Your task to perform on an android device: all mails in gmail Image 0: 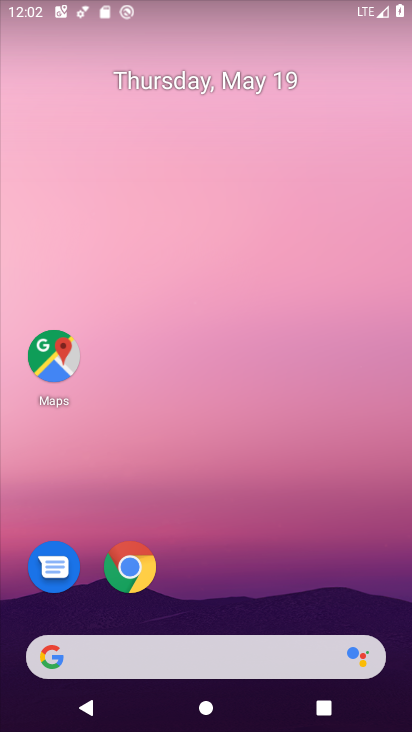
Step 0: drag from (351, 521) to (301, 12)
Your task to perform on an android device: all mails in gmail Image 1: 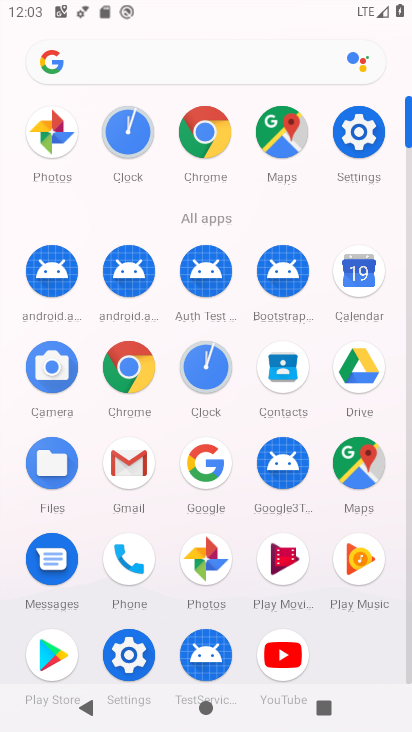
Step 1: click (139, 540)
Your task to perform on an android device: all mails in gmail Image 2: 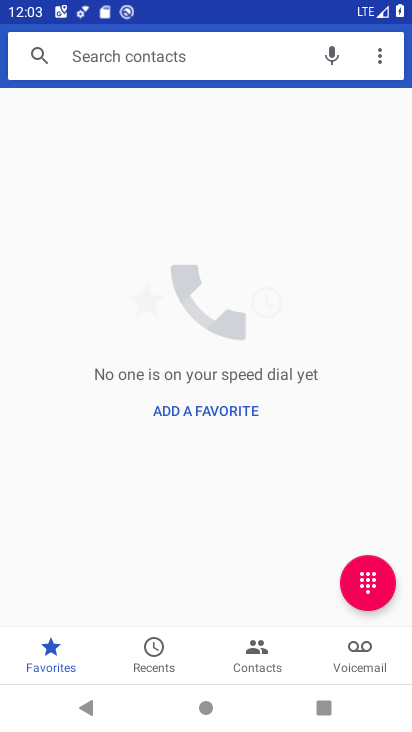
Step 2: press home button
Your task to perform on an android device: all mails in gmail Image 3: 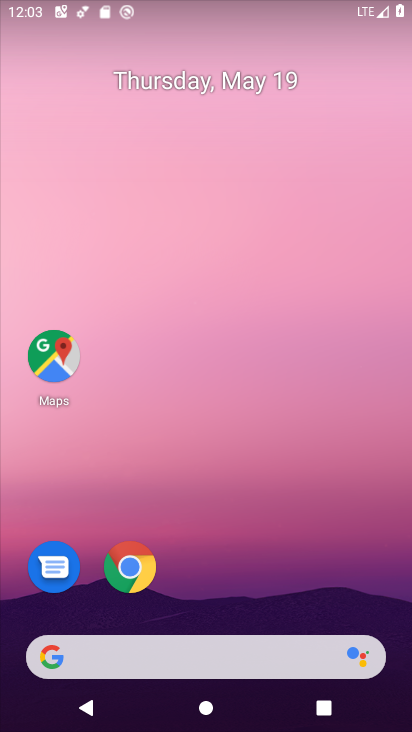
Step 3: drag from (328, 549) to (340, 27)
Your task to perform on an android device: all mails in gmail Image 4: 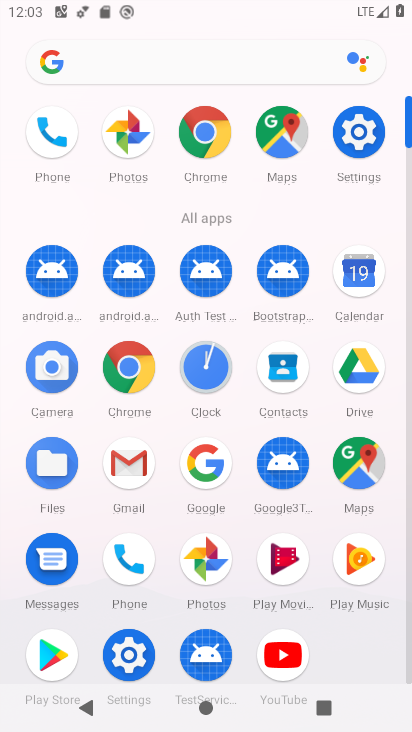
Step 4: click (127, 439)
Your task to perform on an android device: all mails in gmail Image 5: 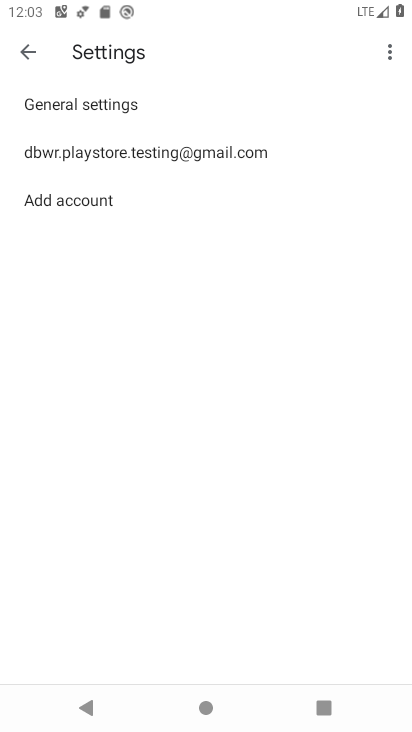
Step 5: click (37, 54)
Your task to perform on an android device: all mails in gmail Image 6: 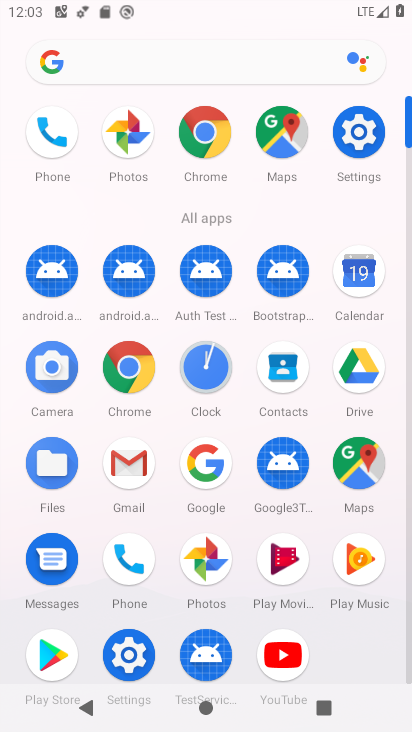
Step 6: click (131, 457)
Your task to perform on an android device: all mails in gmail Image 7: 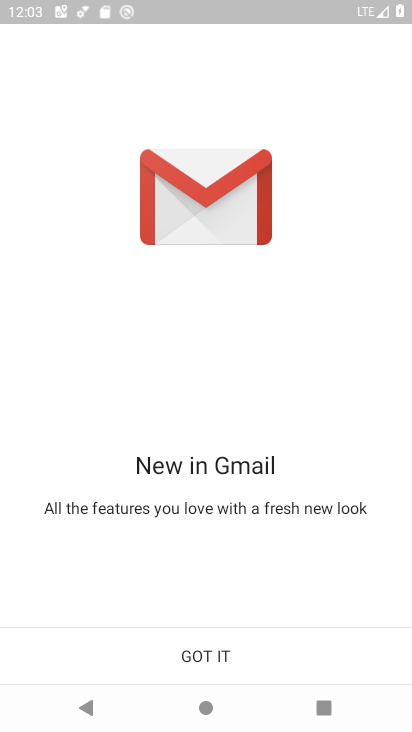
Step 7: click (215, 643)
Your task to perform on an android device: all mails in gmail Image 8: 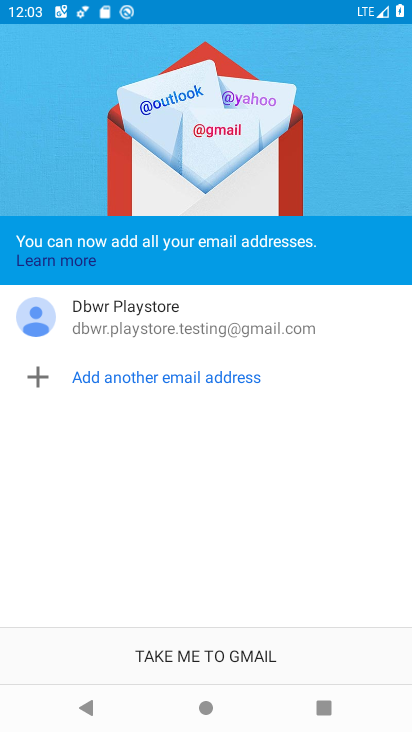
Step 8: click (215, 641)
Your task to perform on an android device: all mails in gmail Image 9: 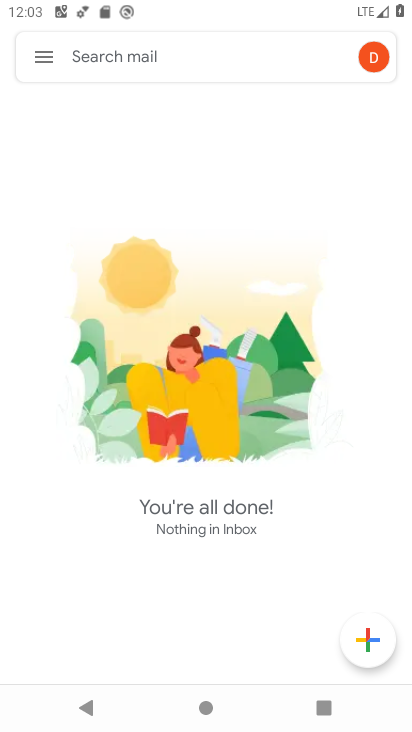
Step 9: click (44, 61)
Your task to perform on an android device: all mails in gmail Image 10: 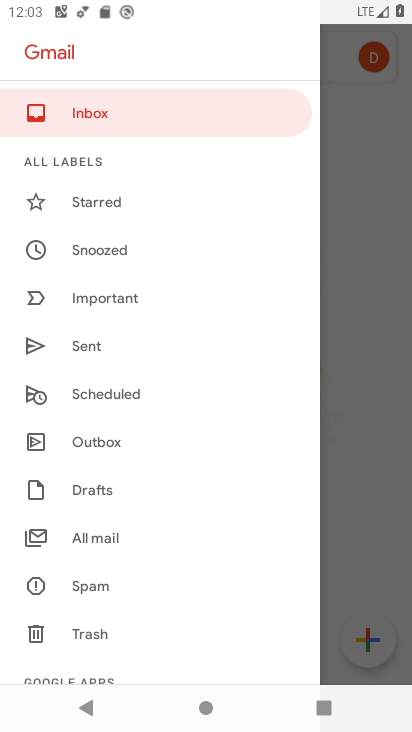
Step 10: click (82, 532)
Your task to perform on an android device: all mails in gmail Image 11: 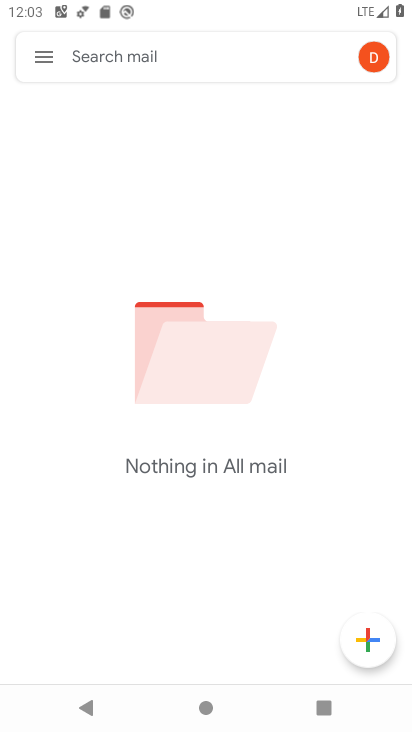
Step 11: task complete